Your task to perform on an android device: Open eBay Image 0: 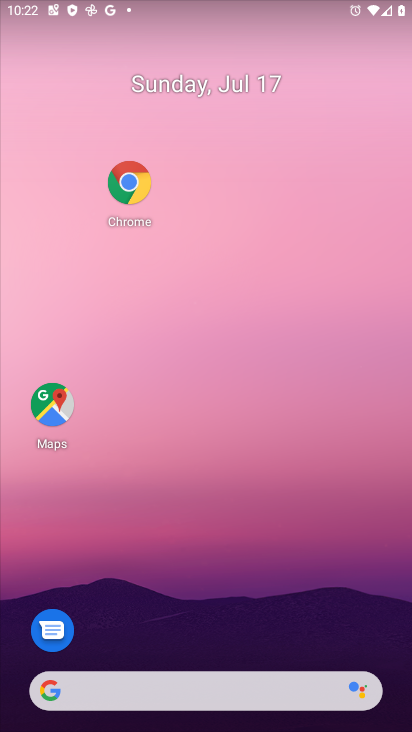
Step 0: click (128, 180)
Your task to perform on an android device: Open eBay Image 1: 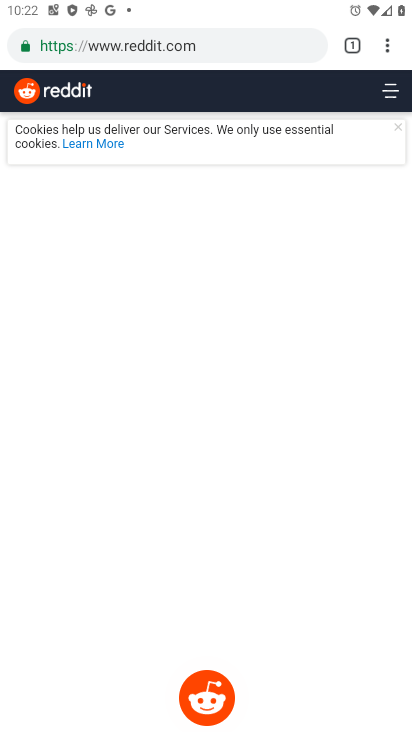
Step 1: click (111, 53)
Your task to perform on an android device: Open eBay Image 2: 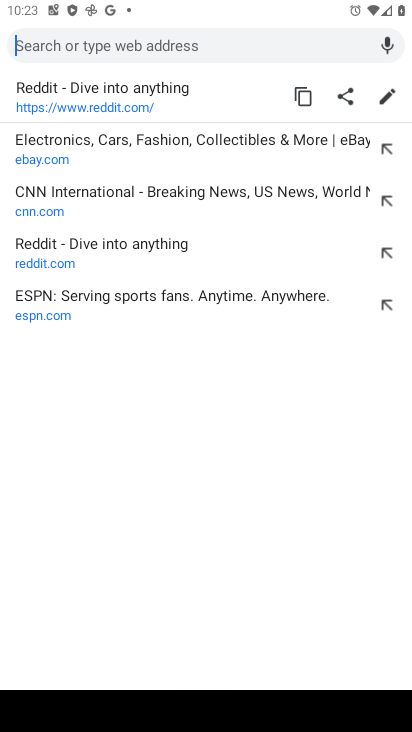
Step 2: click (57, 160)
Your task to perform on an android device: Open eBay Image 3: 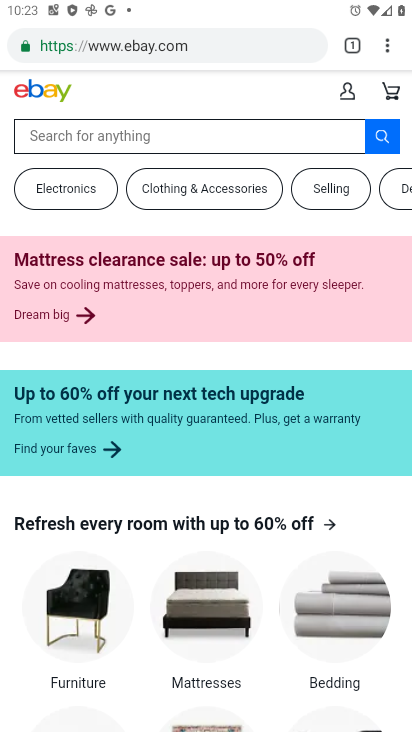
Step 3: task complete